Your task to perform on an android device: set default search engine in the chrome app Image 0: 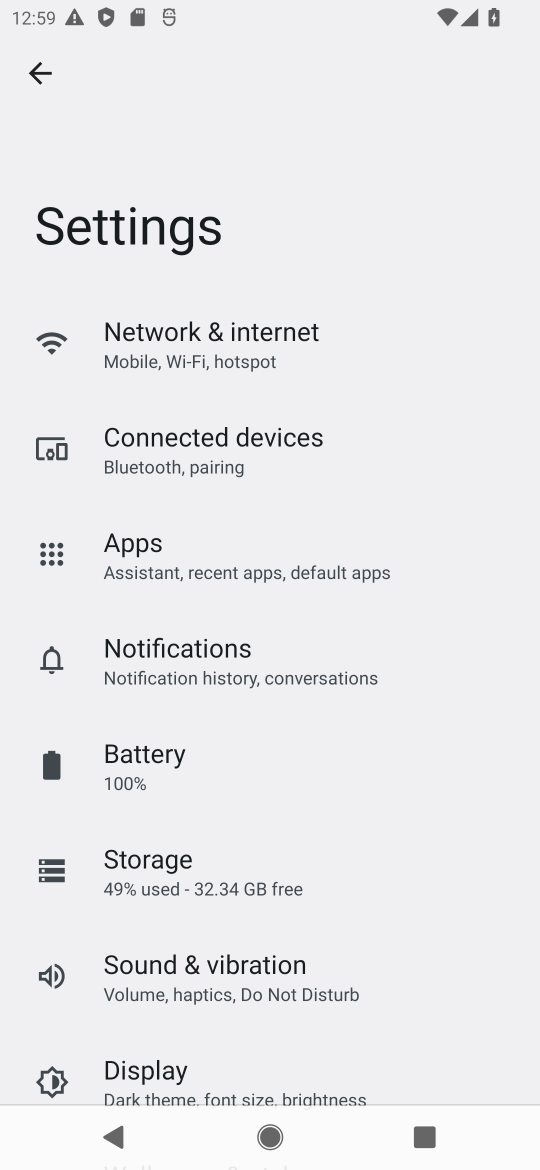
Step 0: press back button
Your task to perform on an android device: set default search engine in the chrome app Image 1: 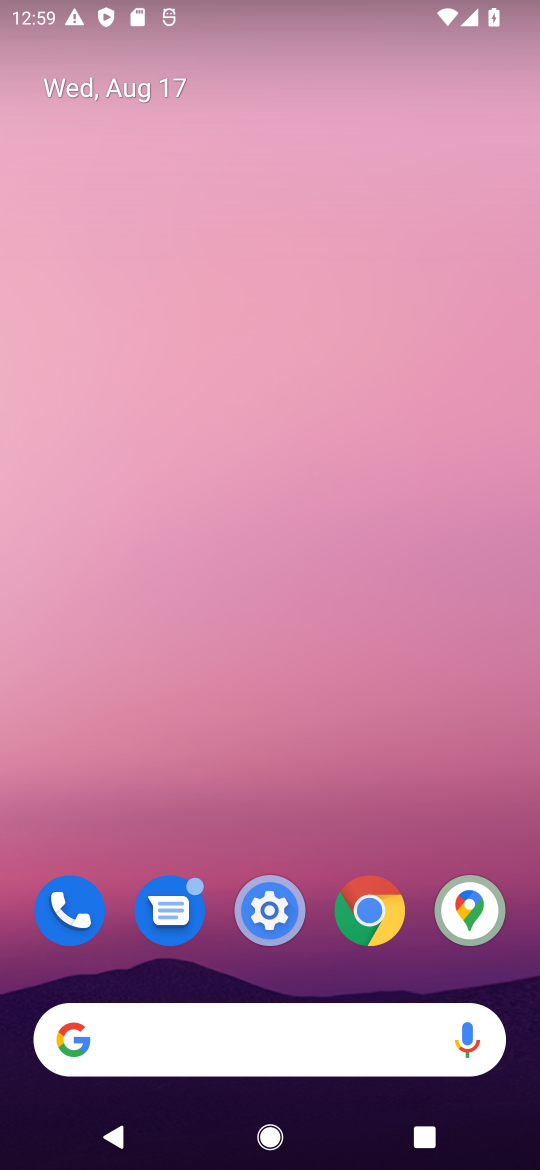
Step 1: click (348, 908)
Your task to perform on an android device: set default search engine in the chrome app Image 2: 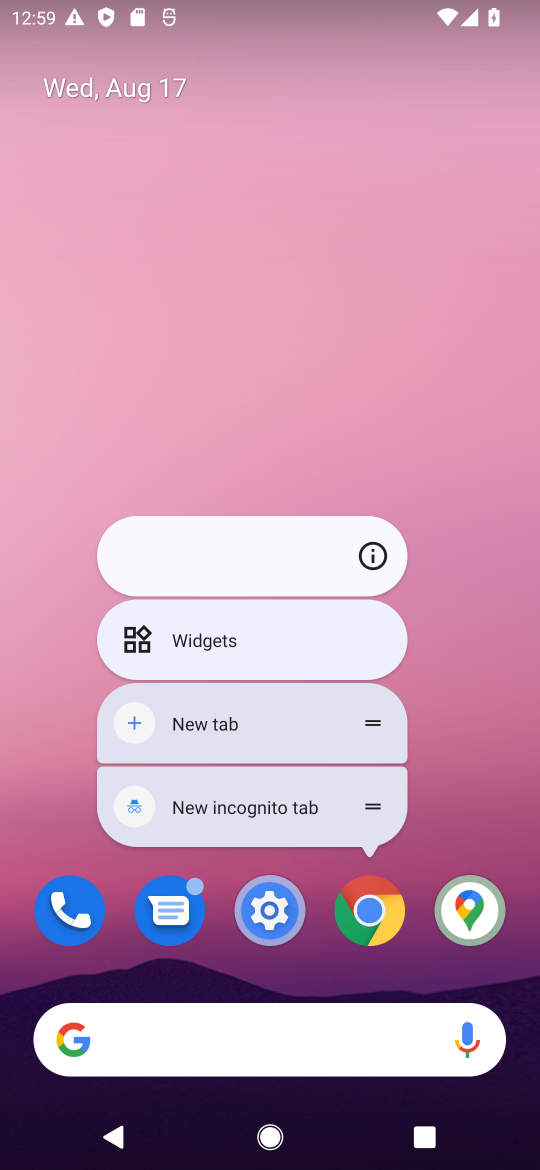
Step 2: click (380, 902)
Your task to perform on an android device: set default search engine in the chrome app Image 3: 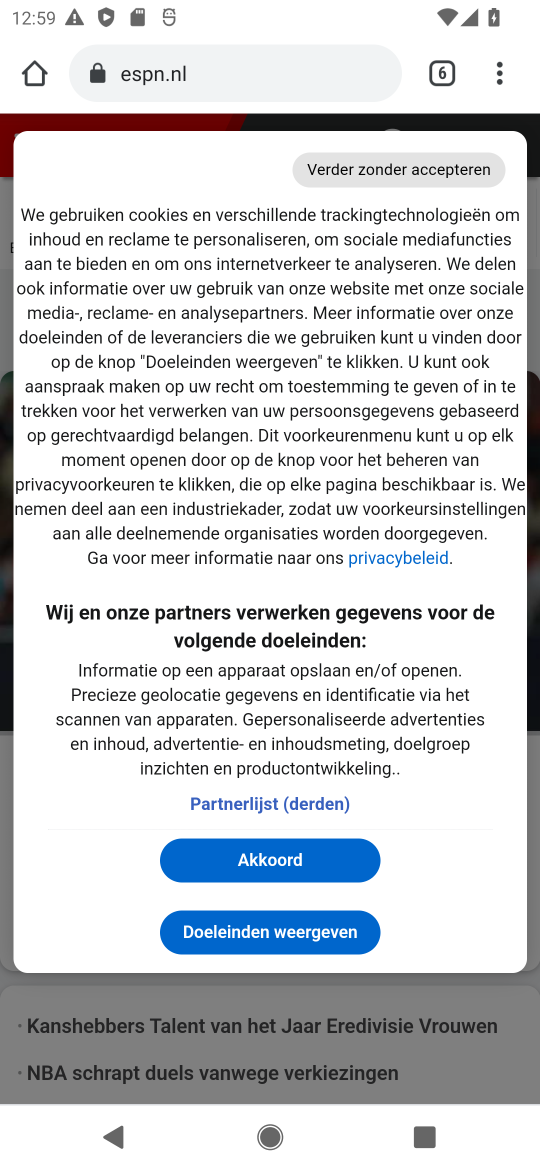
Step 3: drag from (509, 68) to (263, 926)
Your task to perform on an android device: set default search engine in the chrome app Image 4: 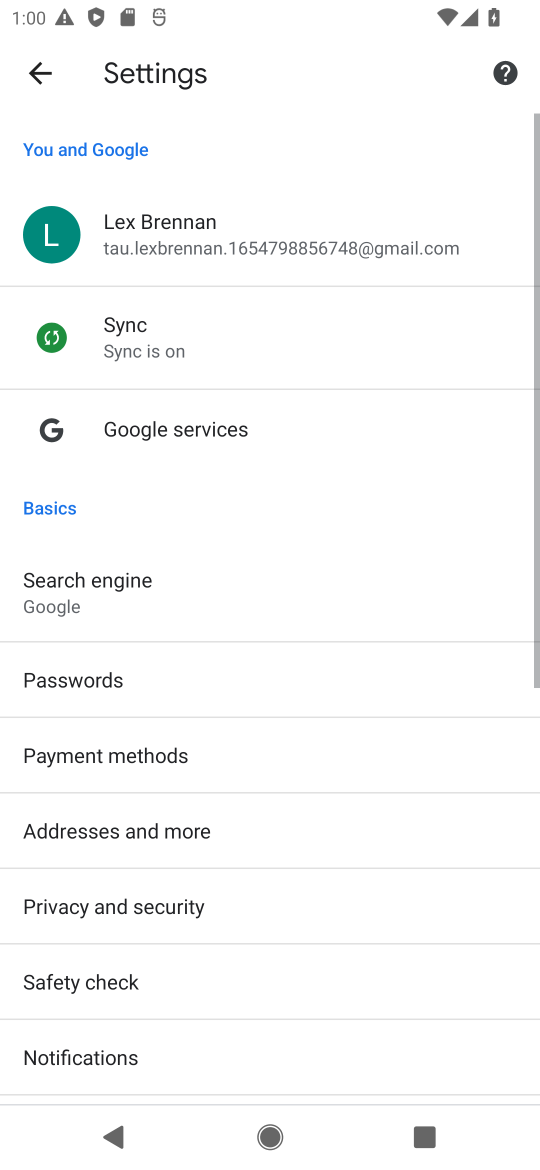
Step 4: click (121, 614)
Your task to perform on an android device: set default search engine in the chrome app Image 5: 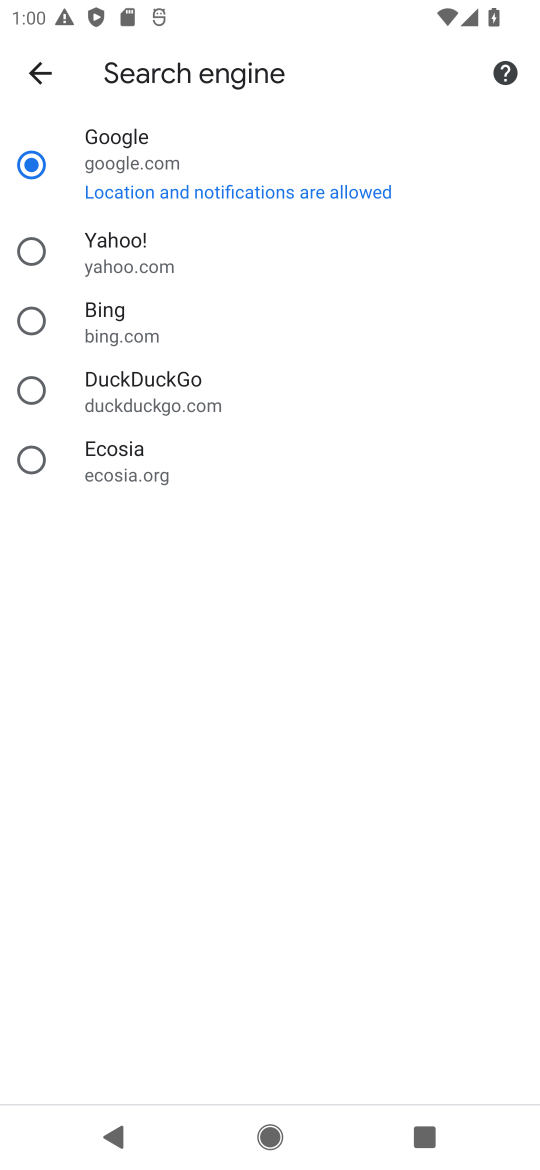
Step 5: click (44, 243)
Your task to perform on an android device: set default search engine in the chrome app Image 6: 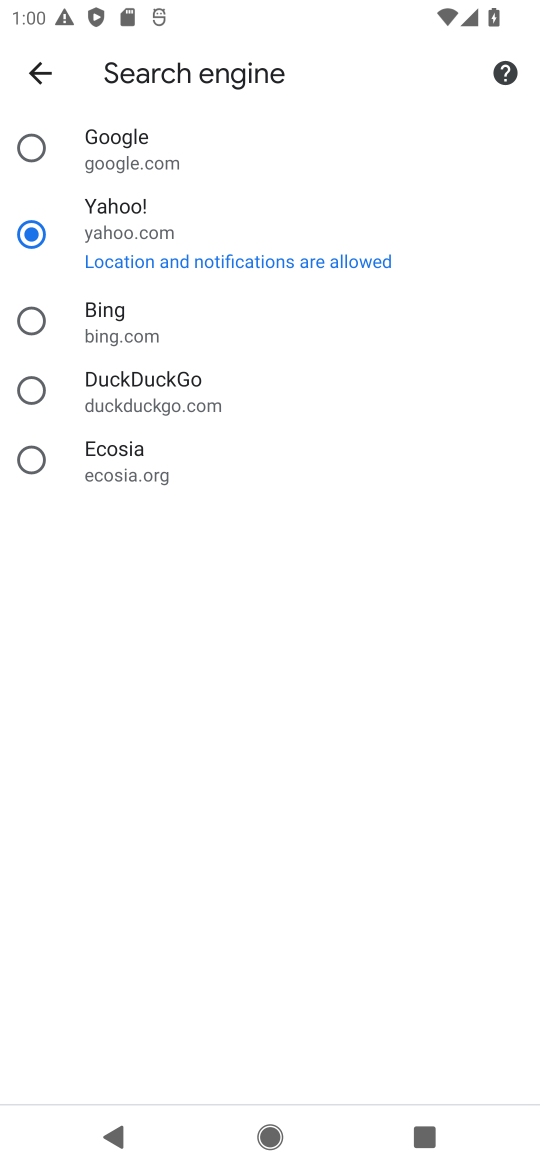
Step 6: task complete